Your task to perform on an android device: Go to Google Image 0: 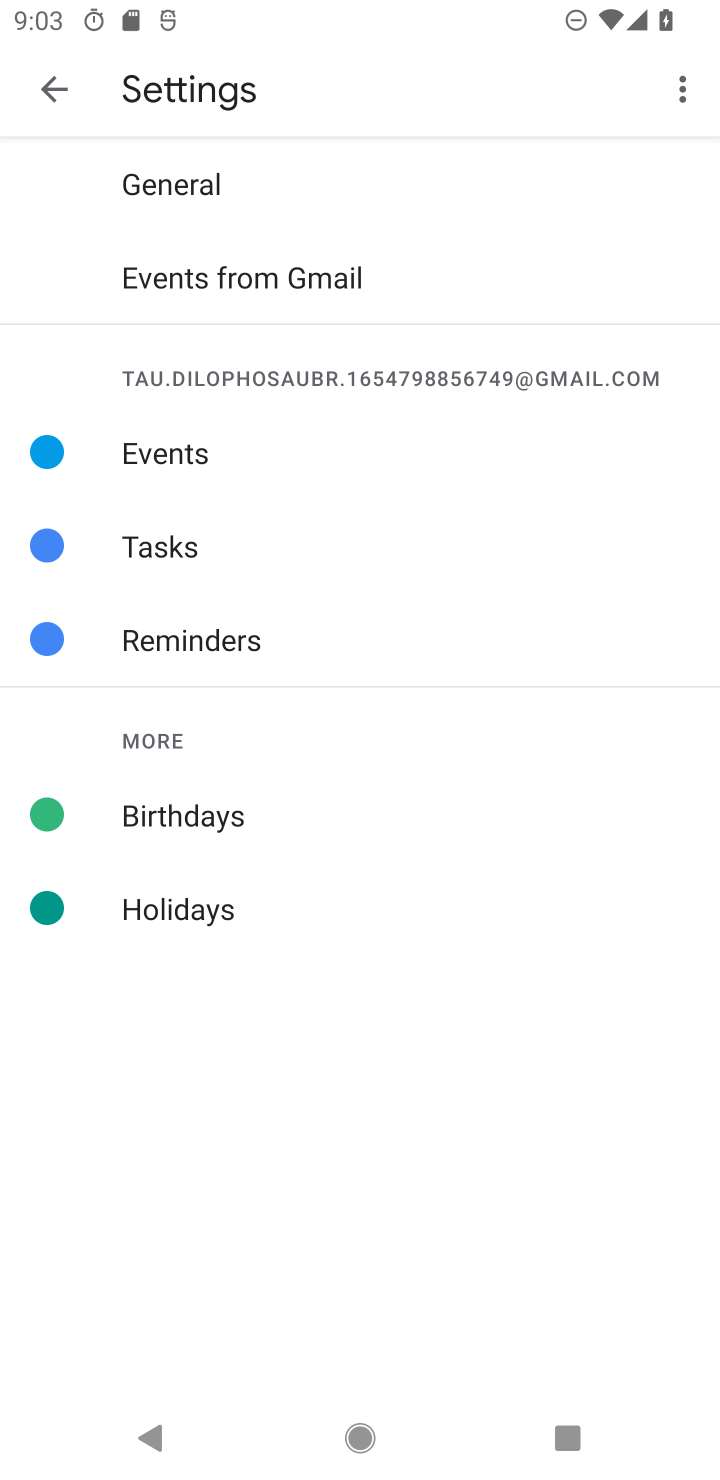
Step 0: press home button
Your task to perform on an android device: Go to Google Image 1: 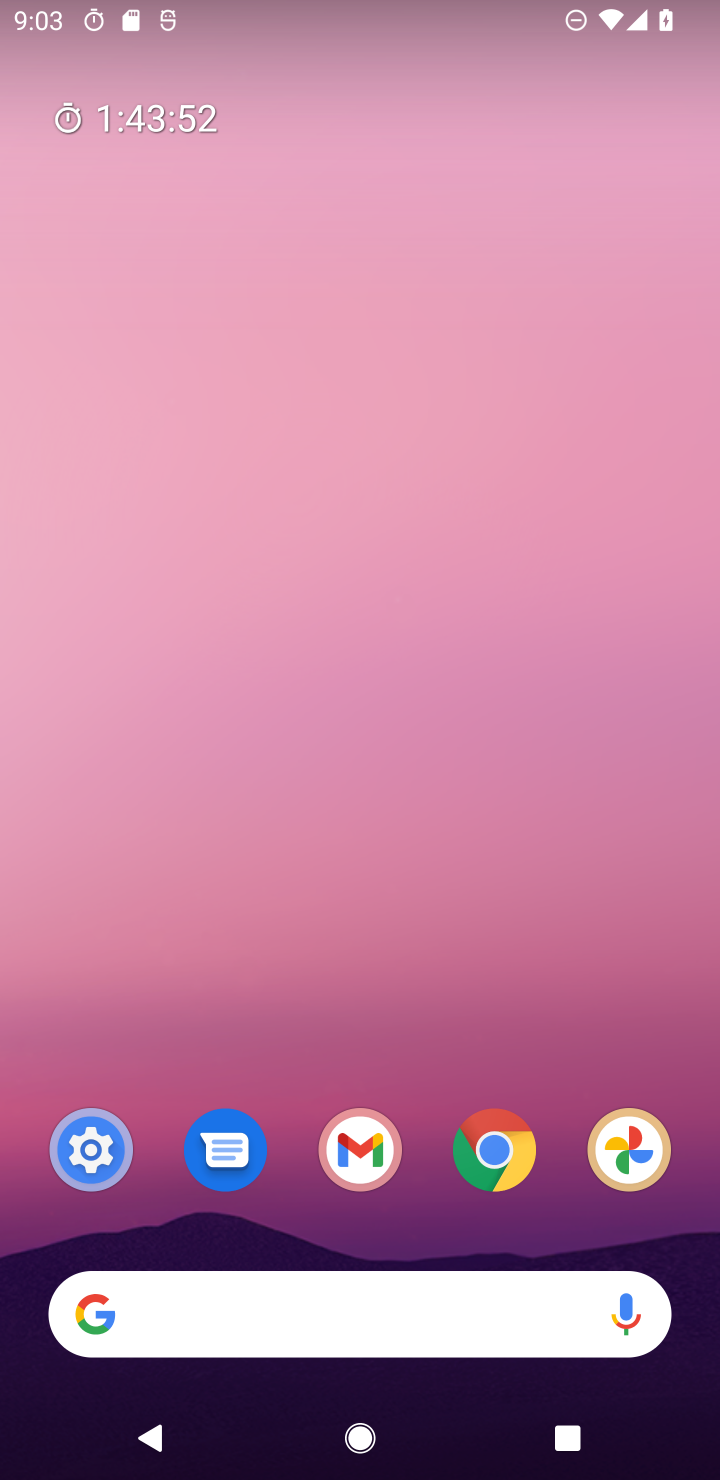
Step 1: drag from (423, 1344) to (665, 0)
Your task to perform on an android device: Go to Google Image 2: 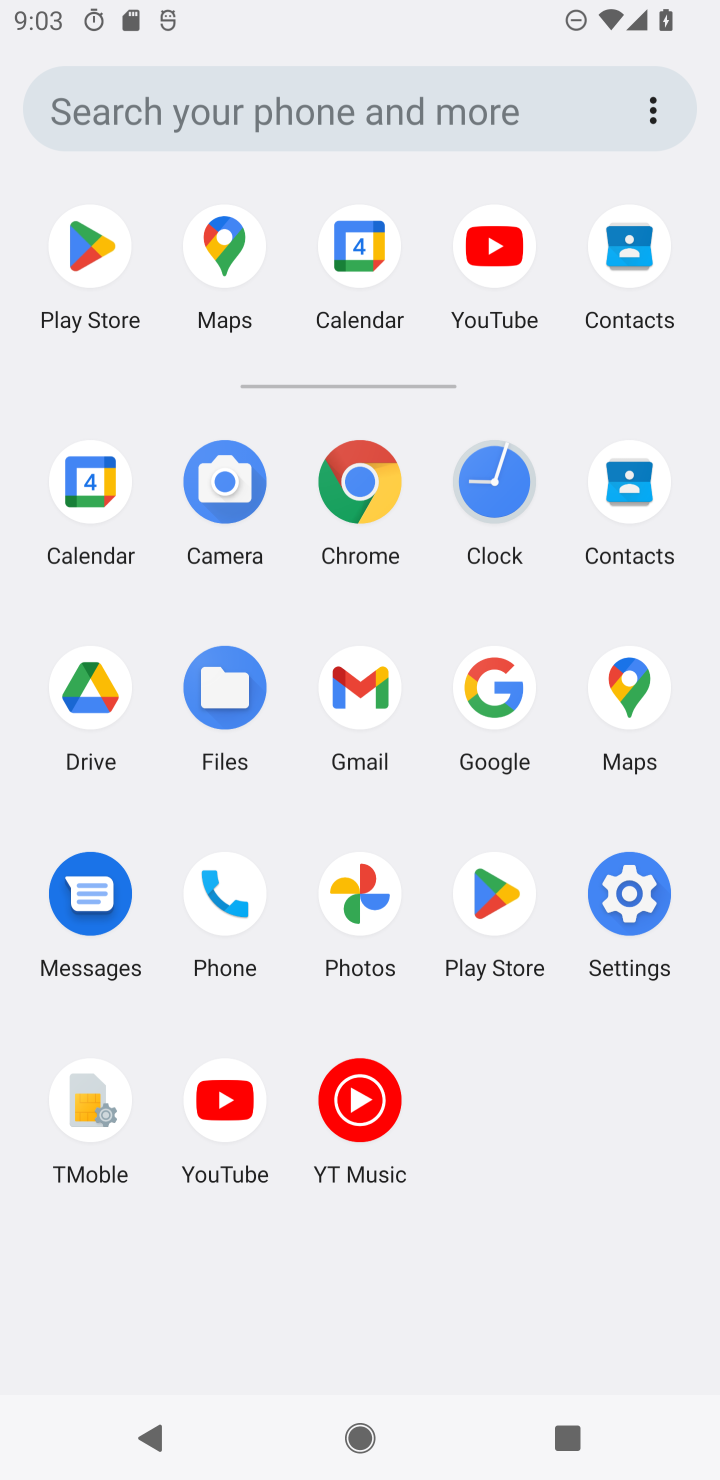
Step 2: click (376, 489)
Your task to perform on an android device: Go to Google Image 3: 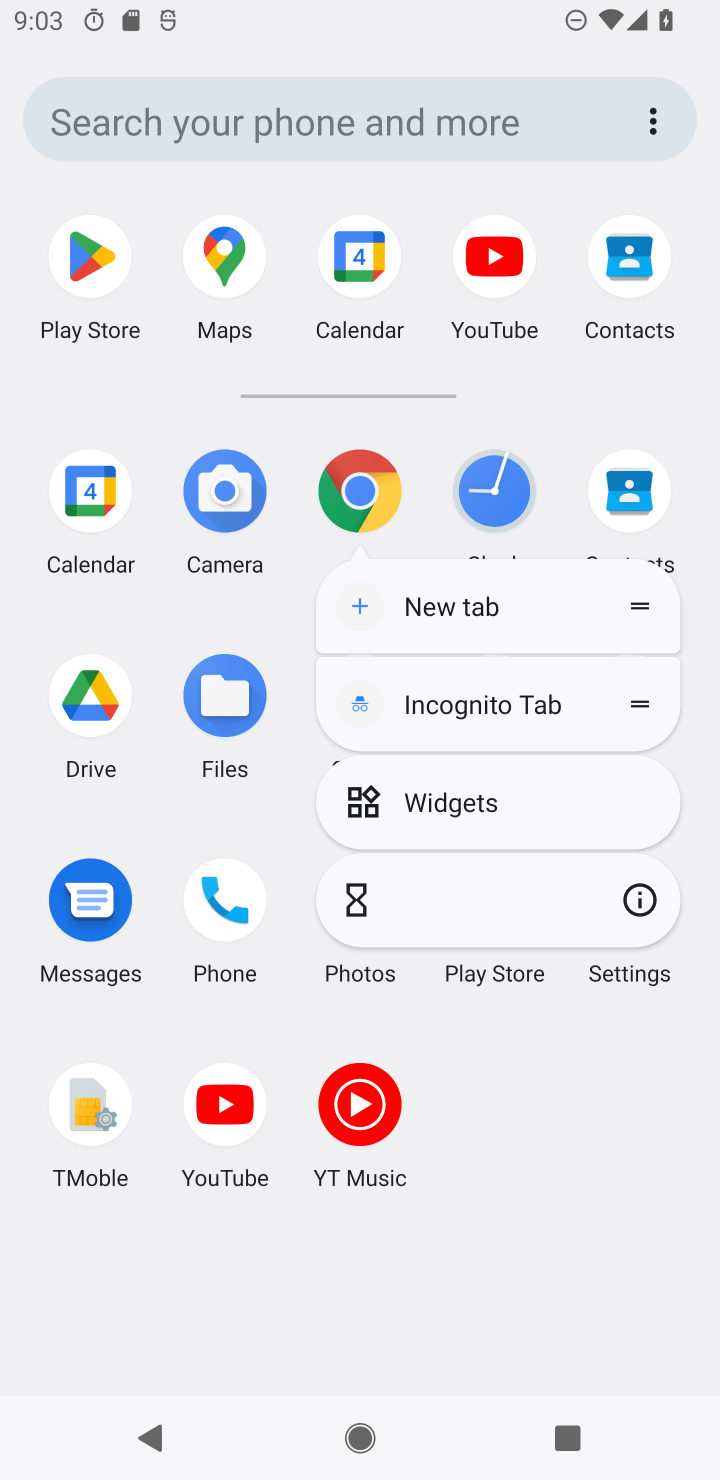
Step 3: click (376, 489)
Your task to perform on an android device: Go to Google Image 4: 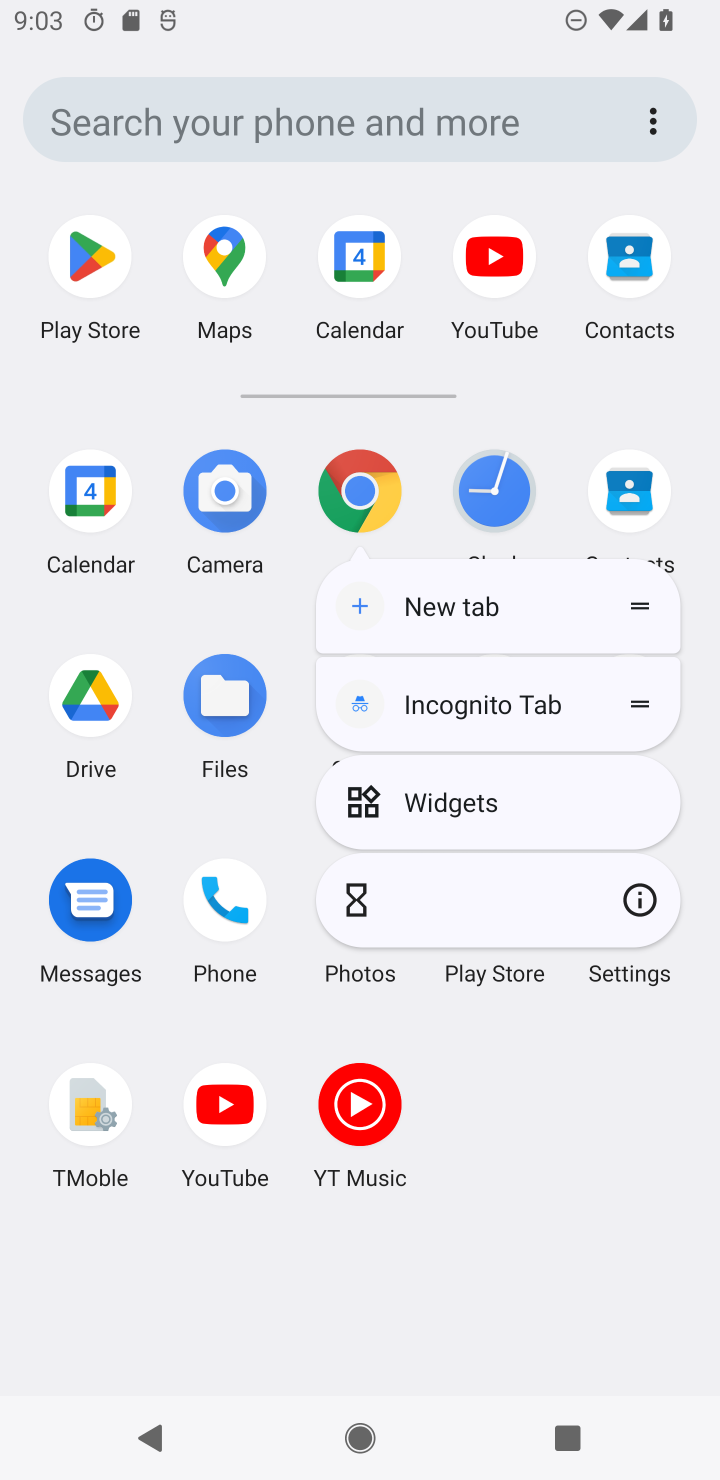
Step 4: click (357, 484)
Your task to perform on an android device: Go to Google Image 5: 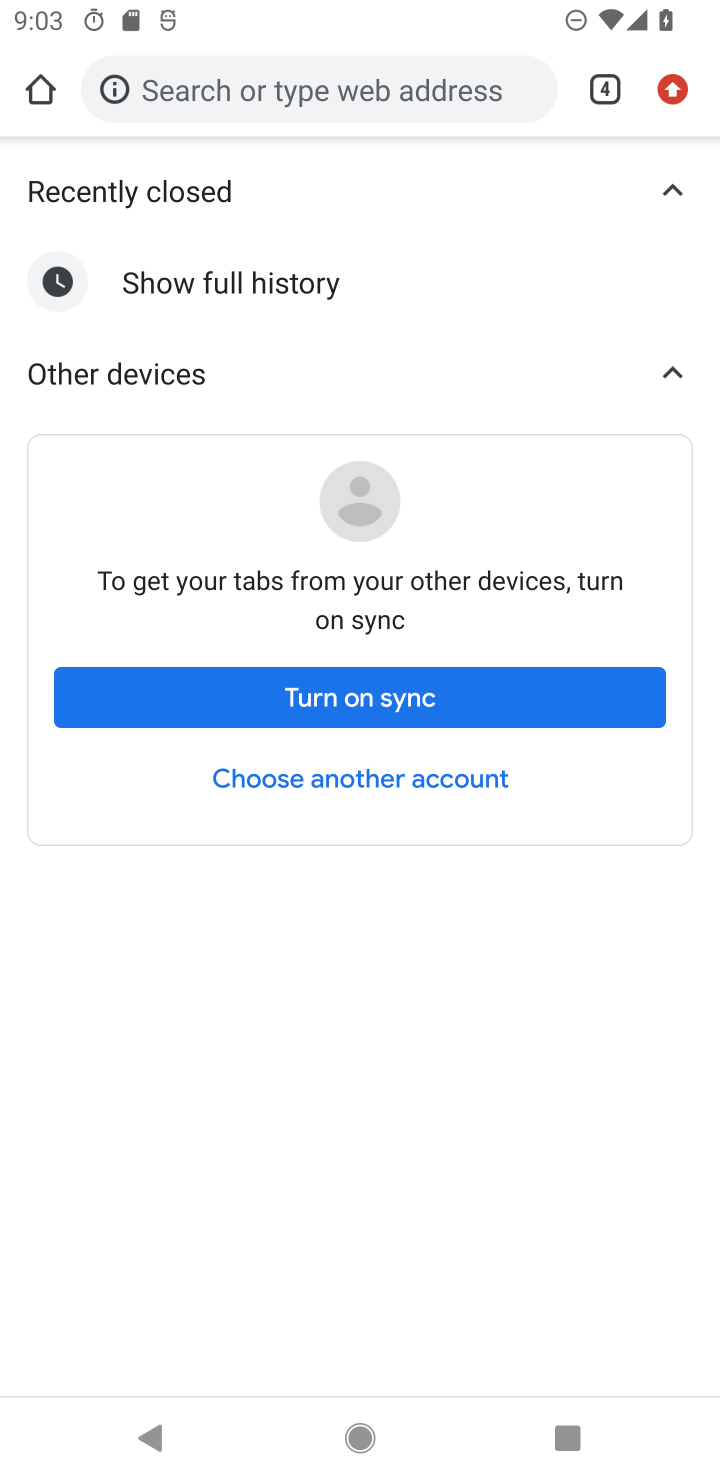
Step 5: task complete